Your task to perform on an android device: Go to calendar. Show me events next week Image 0: 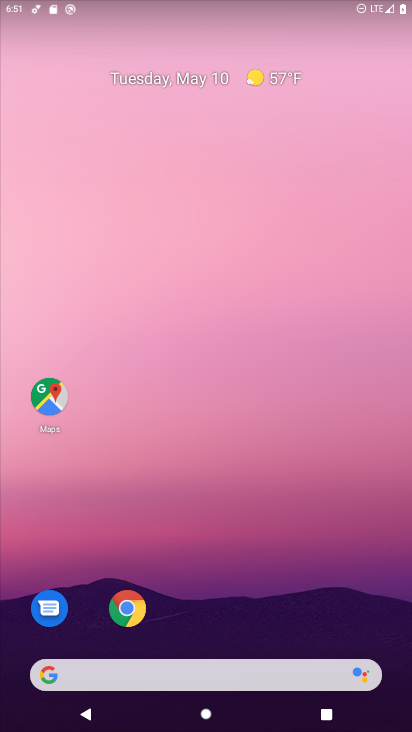
Step 0: drag from (340, 609) to (307, 3)
Your task to perform on an android device: Go to calendar. Show me events next week Image 1: 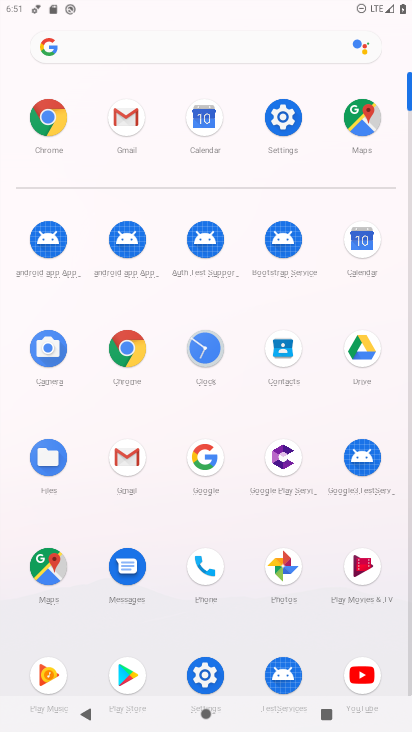
Step 1: click (356, 251)
Your task to perform on an android device: Go to calendar. Show me events next week Image 2: 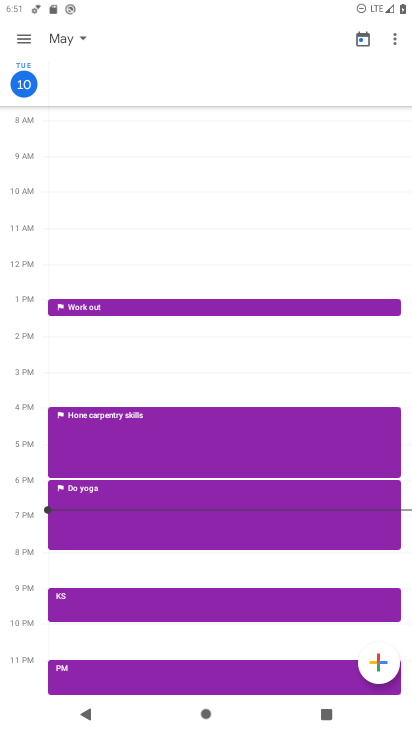
Step 2: click (50, 37)
Your task to perform on an android device: Go to calendar. Show me events next week Image 3: 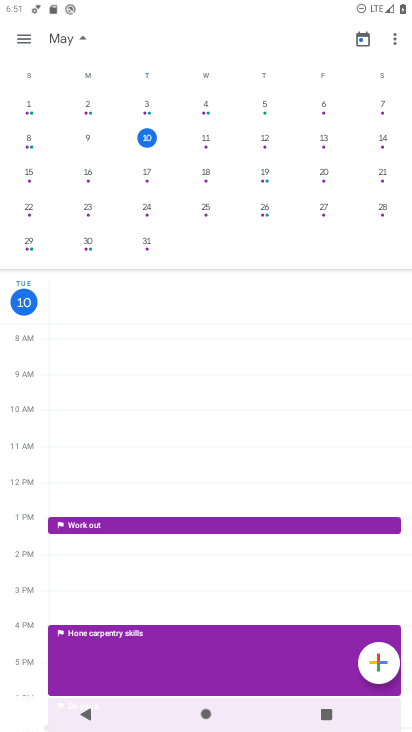
Step 3: click (21, 135)
Your task to perform on an android device: Go to calendar. Show me events next week Image 4: 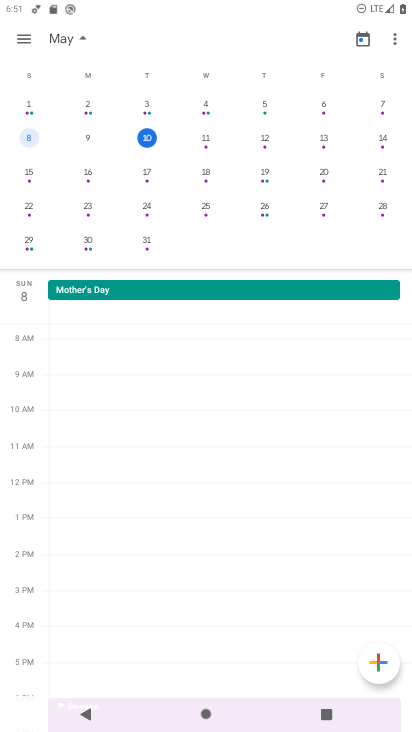
Step 4: task complete